Your task to perform on an android device: add a label to a message in the gmail app Image 0: 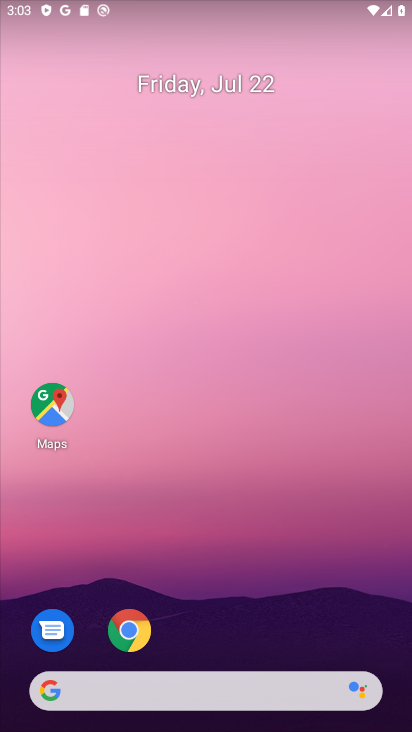
Step 0: drag from (232, 695) to (124, 28)
Your task to perform on an android device: add a label to a message in the gmail app Image 1: 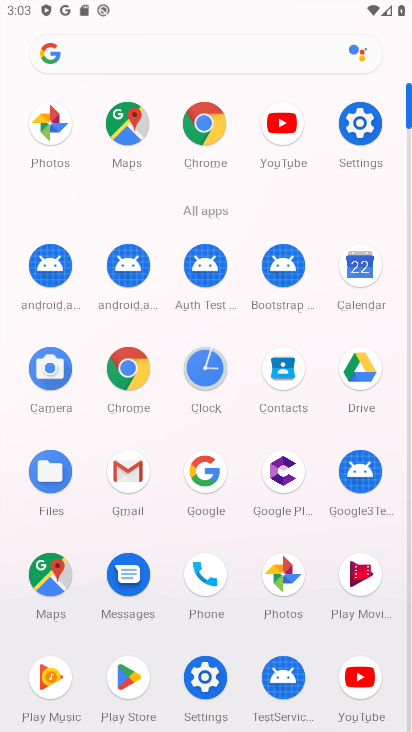
Step 1: click (130, 467)
Your task to perform on an android device: add a label to a message in the gmail app Image 2: 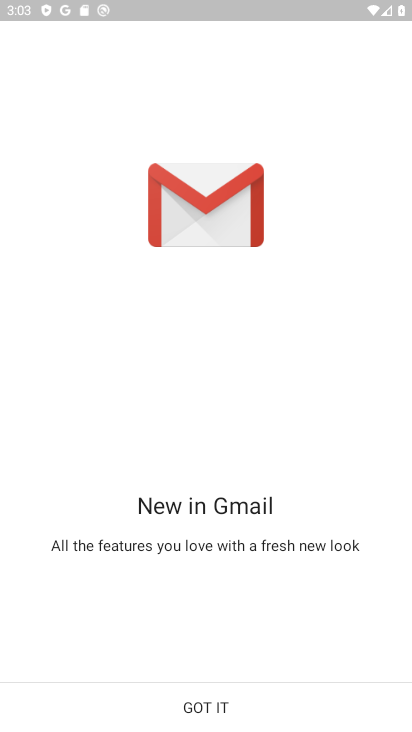
Step 2: click (163, 698)
Your task to perform on an android device: add a label to a message in the gmail app Image 3: 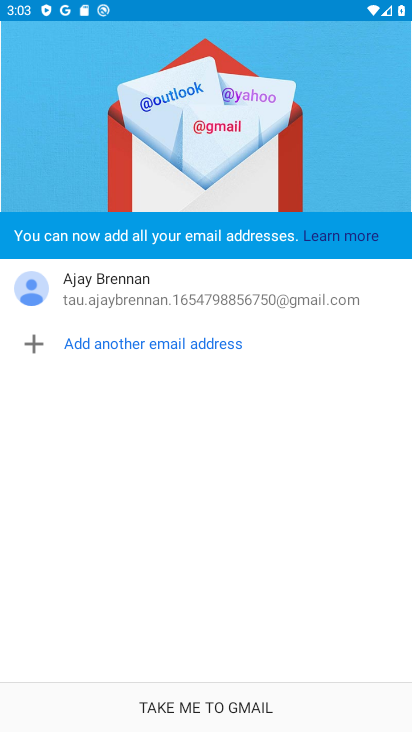
Step 3: click (173, 697)
Your task to perform on an android device: add a label to a message in the gmail app Image 4: 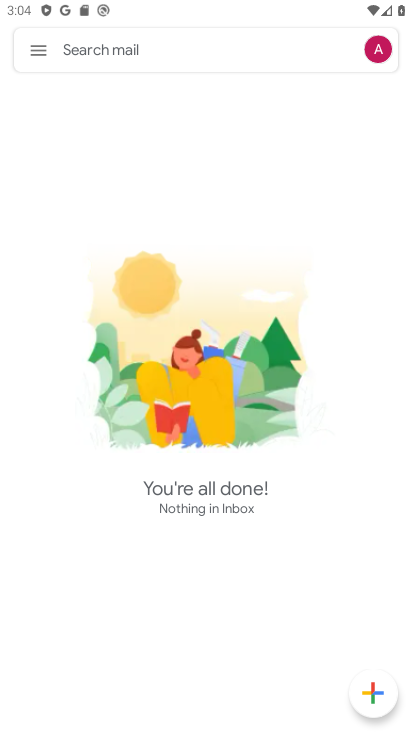
Step 4: click (29, 57)
Your task to perform on an android device: add a label to a message in the gmail app Image 5: 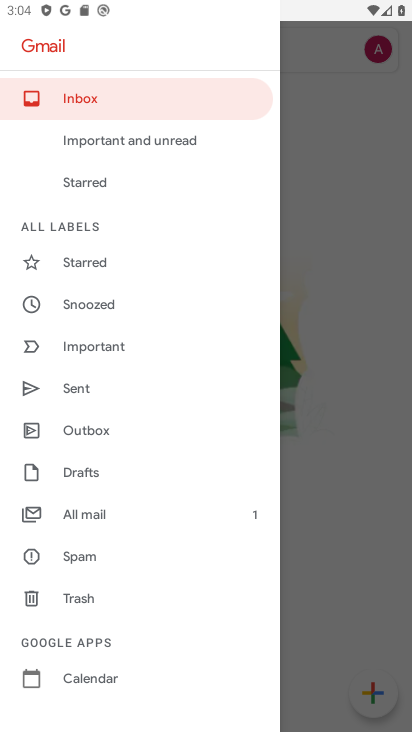
Step 5: click (81, 507)
Your task to perform on an android device: add a label to a message in the gmail app Image 6: 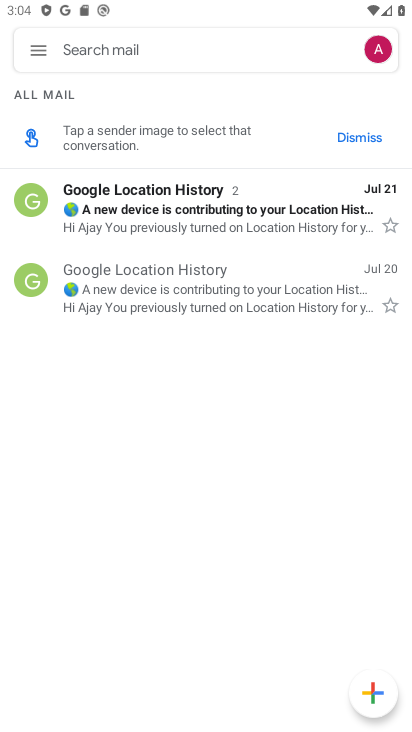
Step 6: click (128, 229)
Your task to perform on an android device: add a label to a message in the gmail app Image 7: 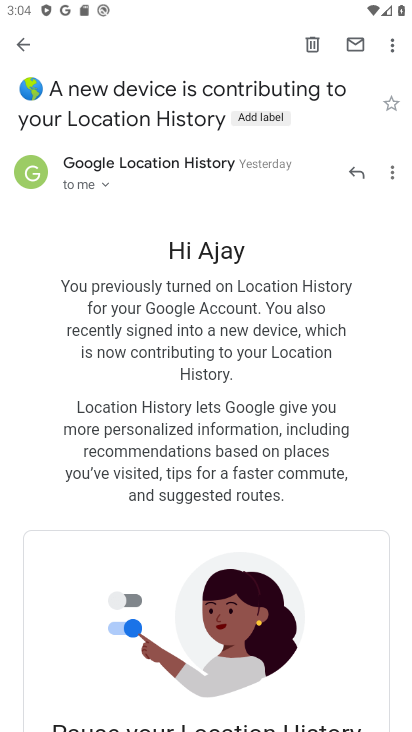
Step 7: click (262, 111)
Your task to perform on an android device: add a label to a message in the gmail app Image 8: 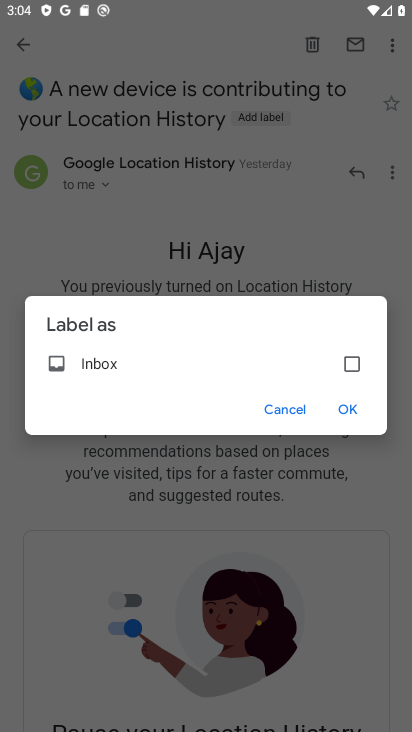
Step 8: click (354, 362)
Your task to perform on an android device: add a label to a message in the gmail app Image 9: 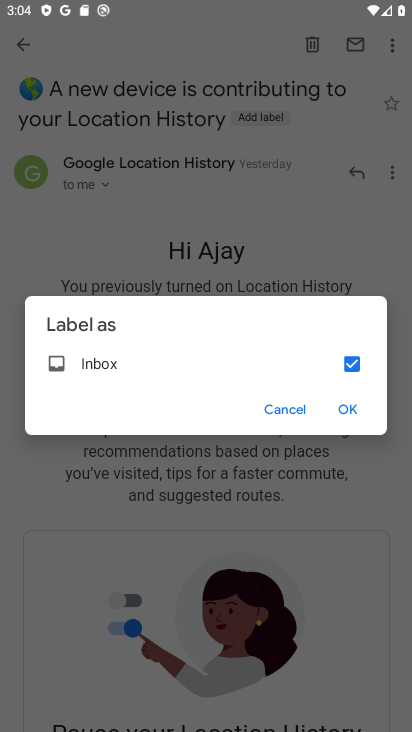
Step 9: click (354, 401)
Your task to perform on an android device: add a label to a message in the gmail app Image 10: 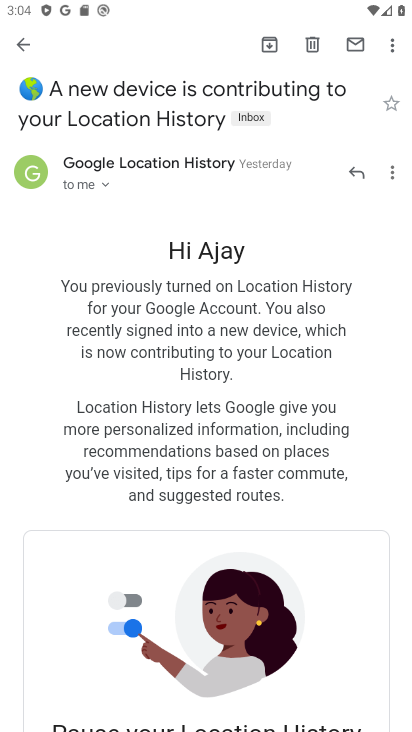
Step 10: task complete